Your task to perform on an android device: Open the web browser Image 0: 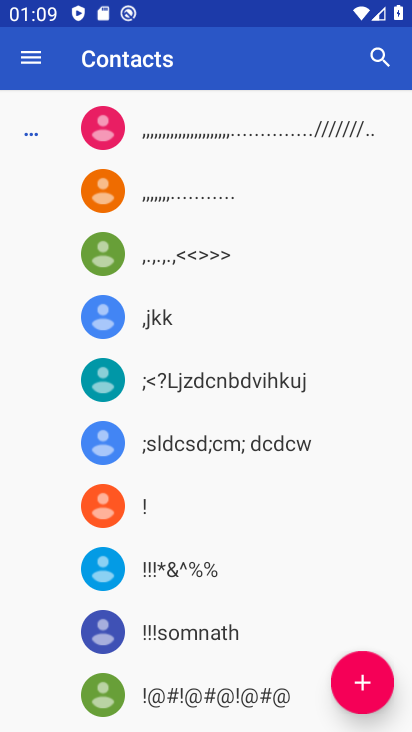
Step 0: press home button
Your task to perform on an android device: Open the web browser Image 1: 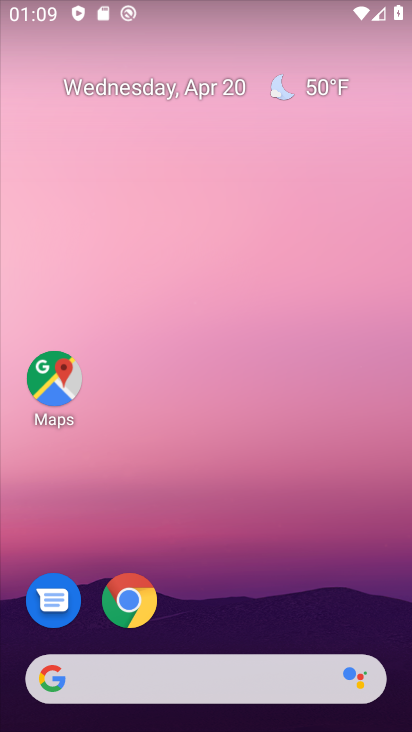
Step 1: click (118, 591)
Your task to perform on an android device: Open the web browser Image 2: 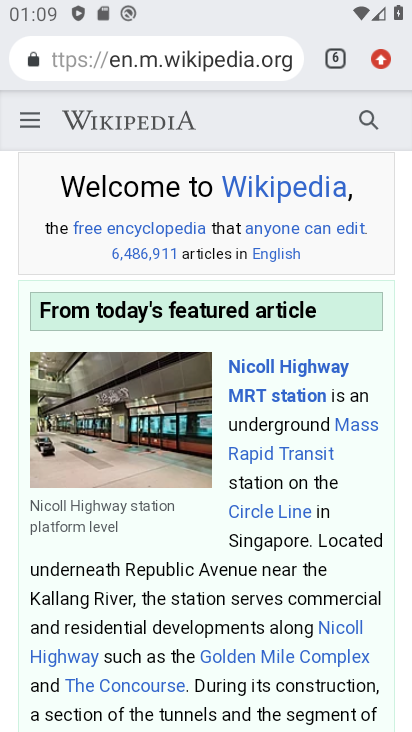
Step 2: task complete